Your task to perform on an android device: Search for hotels in Buenos aires Image 0: 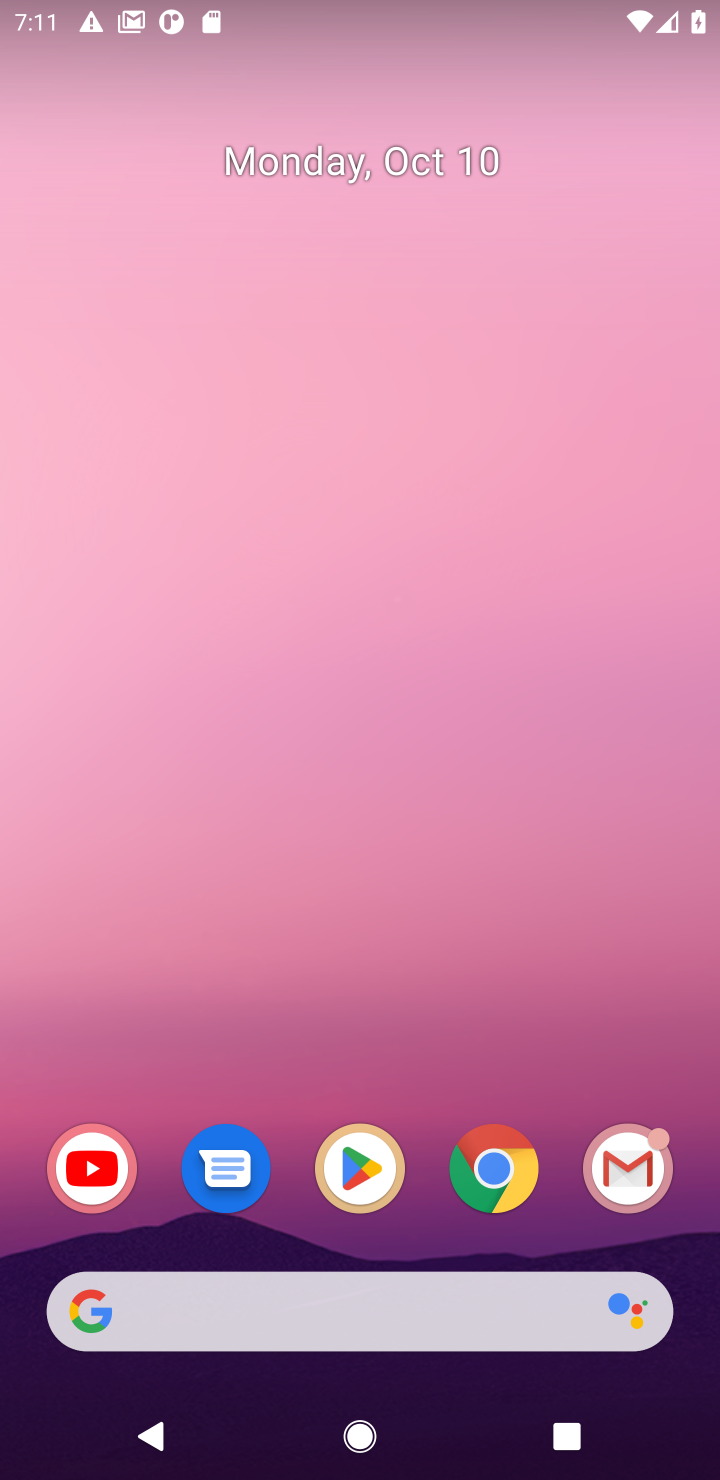
Step 0: click (500, 1187)
Your task to perform on an android device: Search for hotels in Buenos aires Image 1: 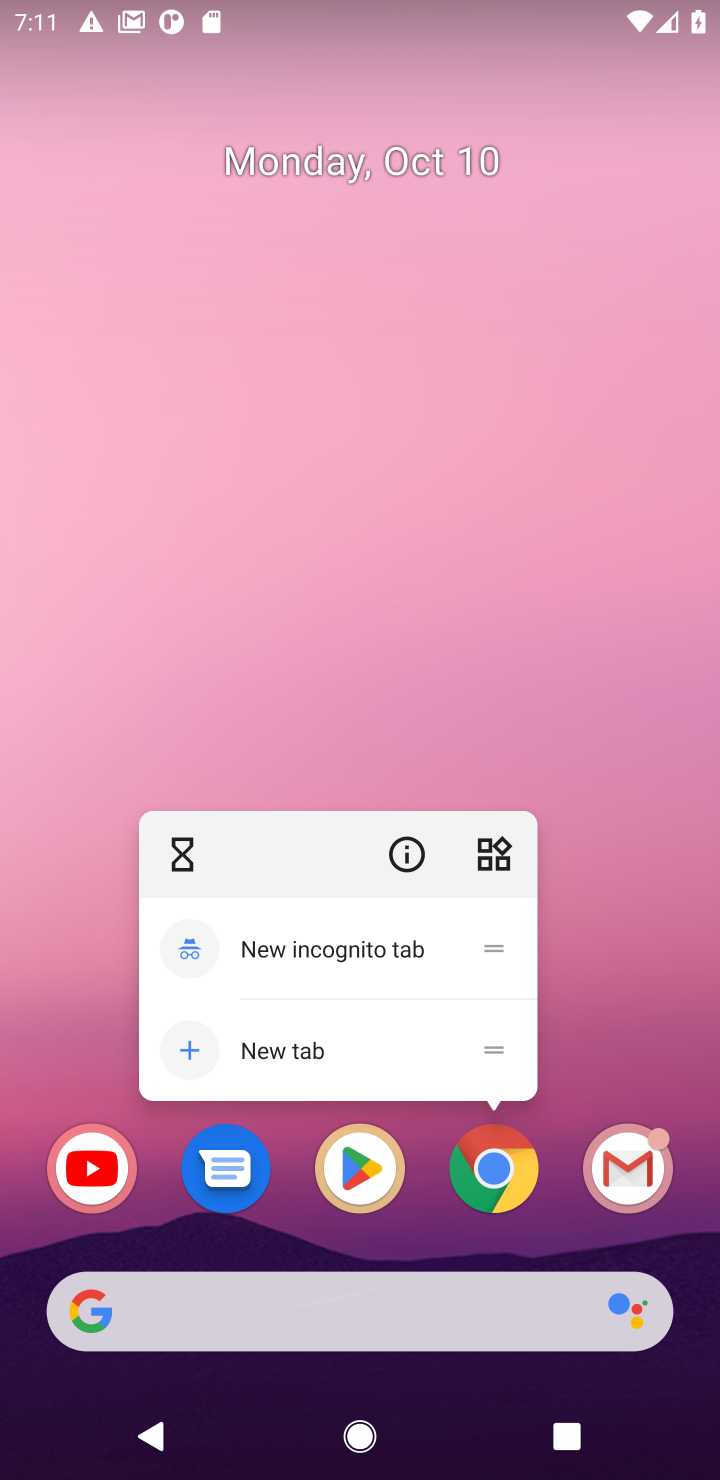
Step 1: click (492, 1173)
Your task to perform on an android device: Search for hotels in Buenos aires Image 2: 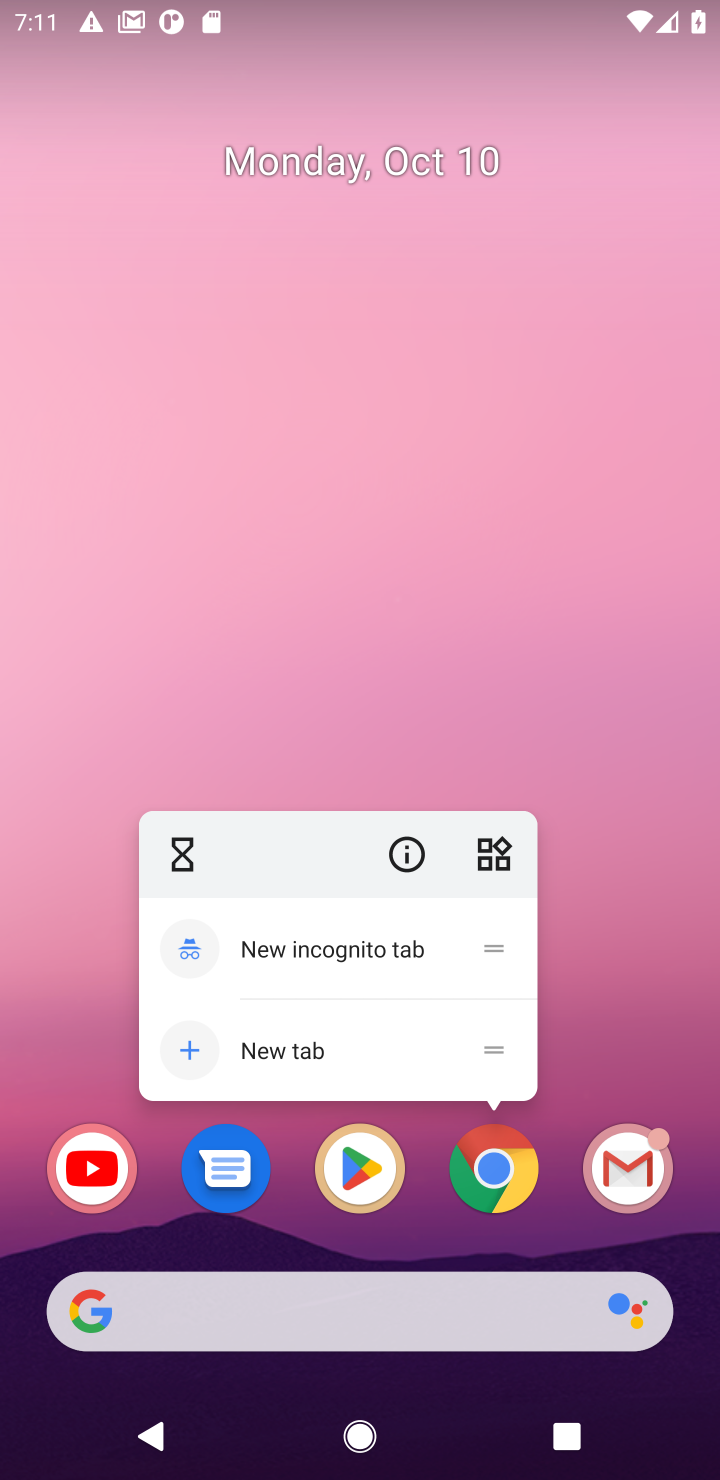
Step 2: click (489, 1195)
Your task to perform on an android device: Search for hotels in Buenos aires Image 3: 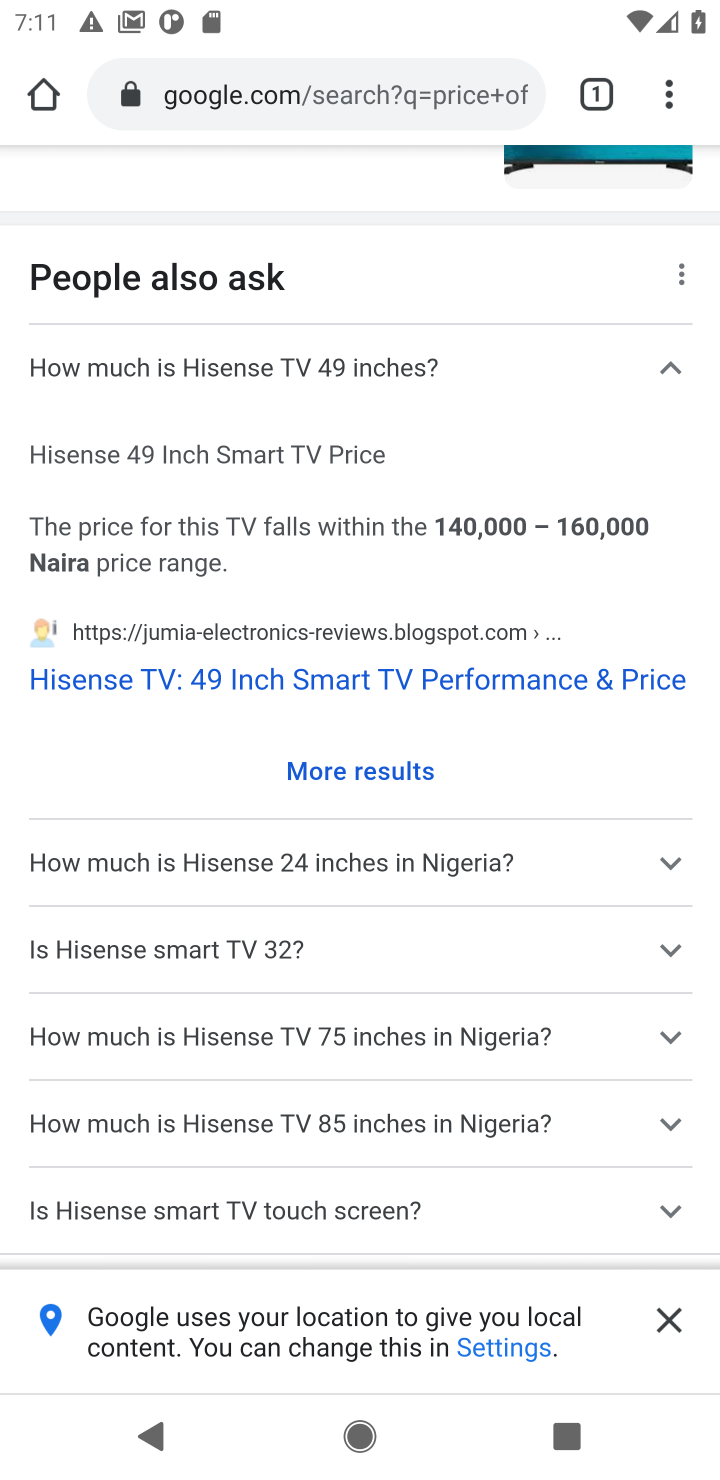
Step 3: click (308, 80)
Your task to perform on an android device: Search for hotels in Buenos aires Image 4: 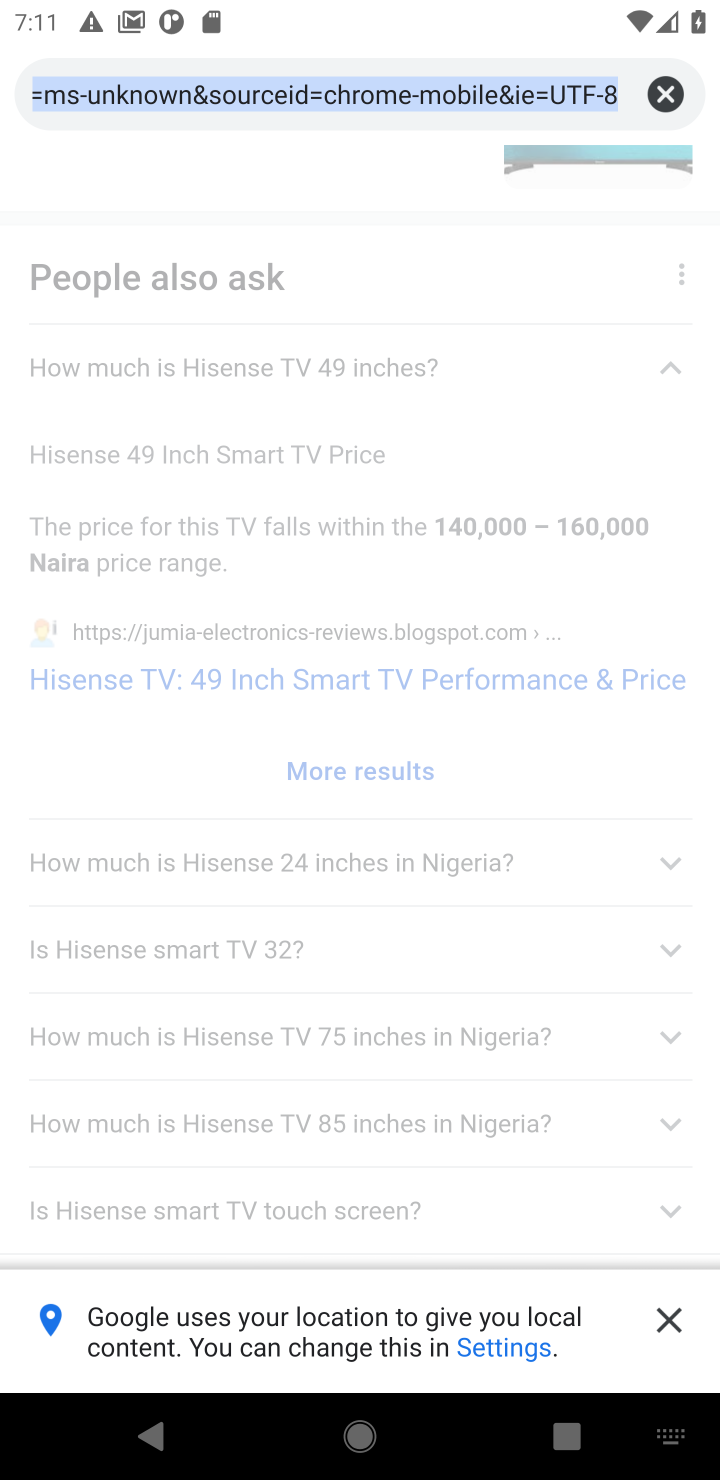
Step 4: click (662, 95)
Your task to perform on an android device: Search for hotels in Buenos aires Image 5: 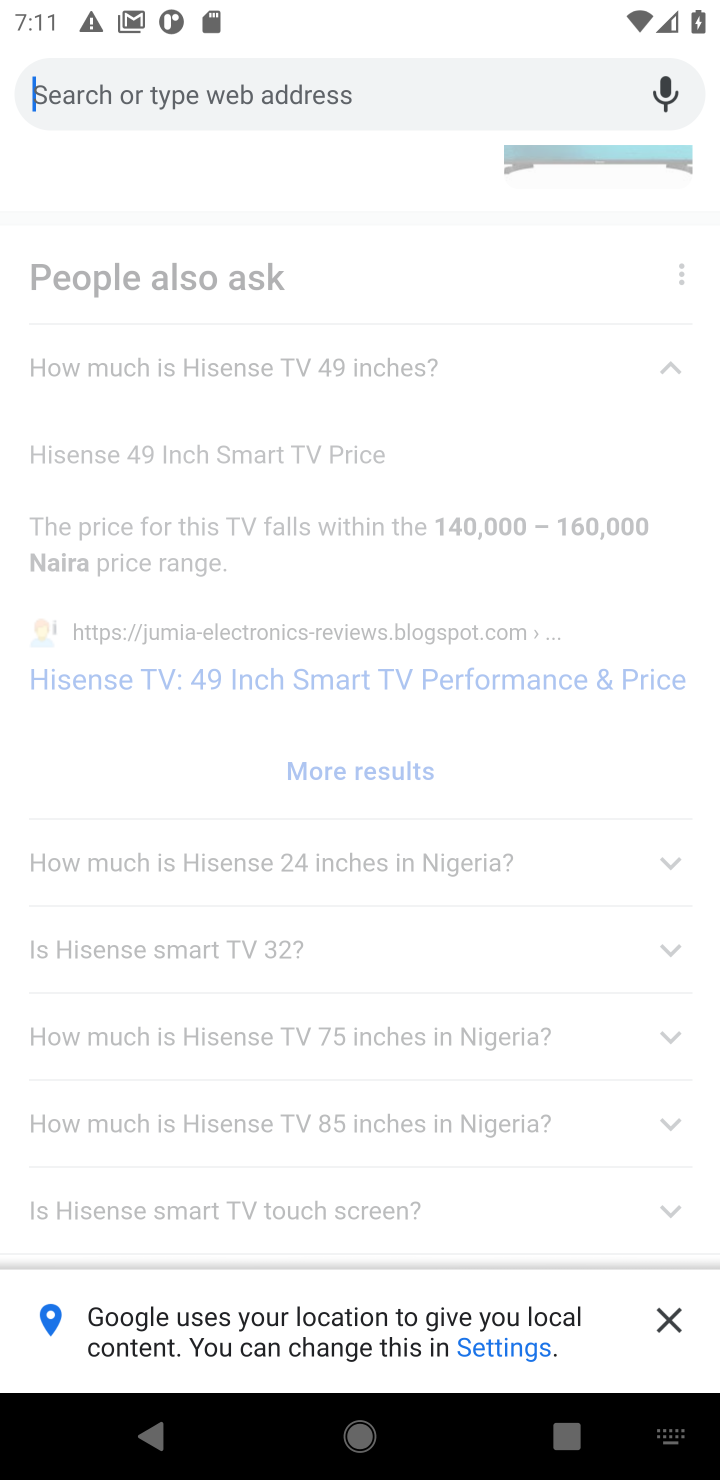
Step 5: type "hotels in buenos aires"
Your task to perform on an android device: Search for hotels in Buenos aires Image 6: 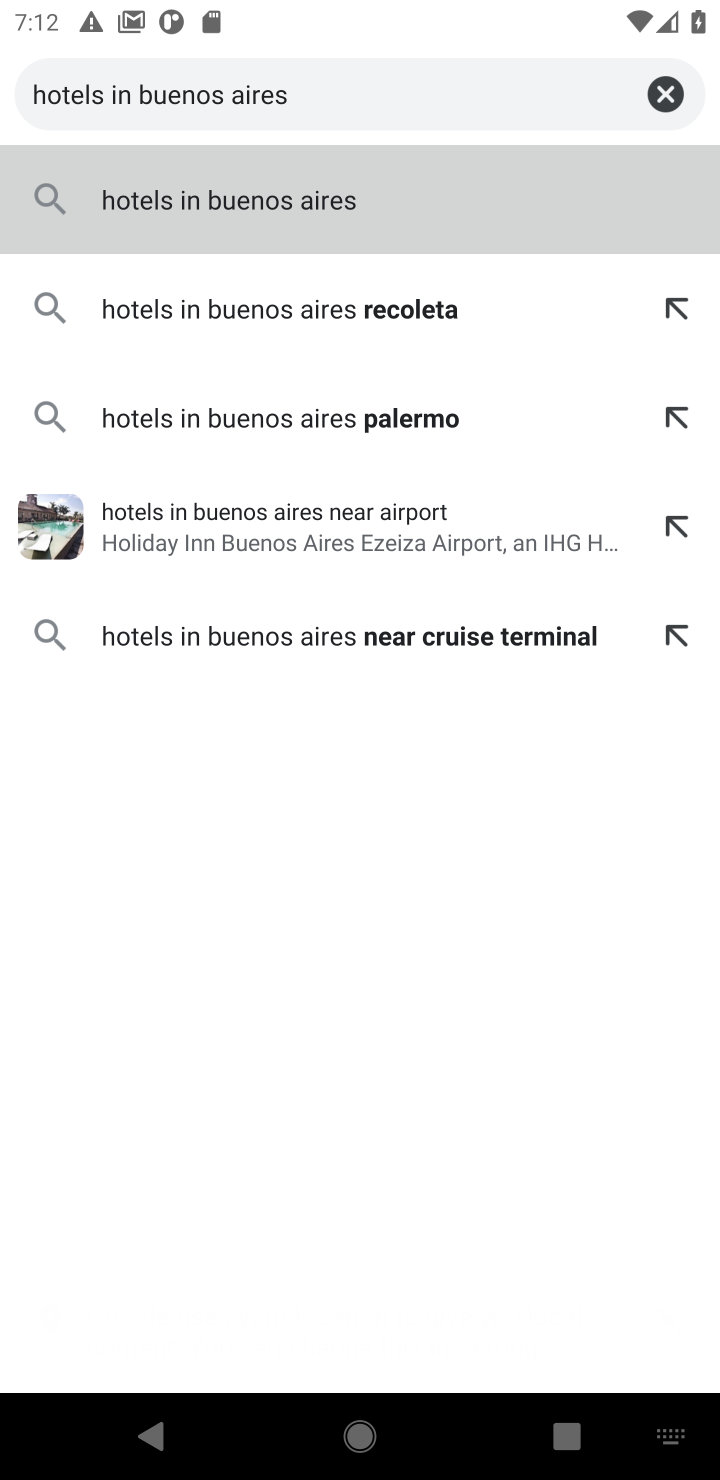
Step 6: click (163, 203)
Your task to perform on an android device: Search for hotels in Buenos aires Image 7: 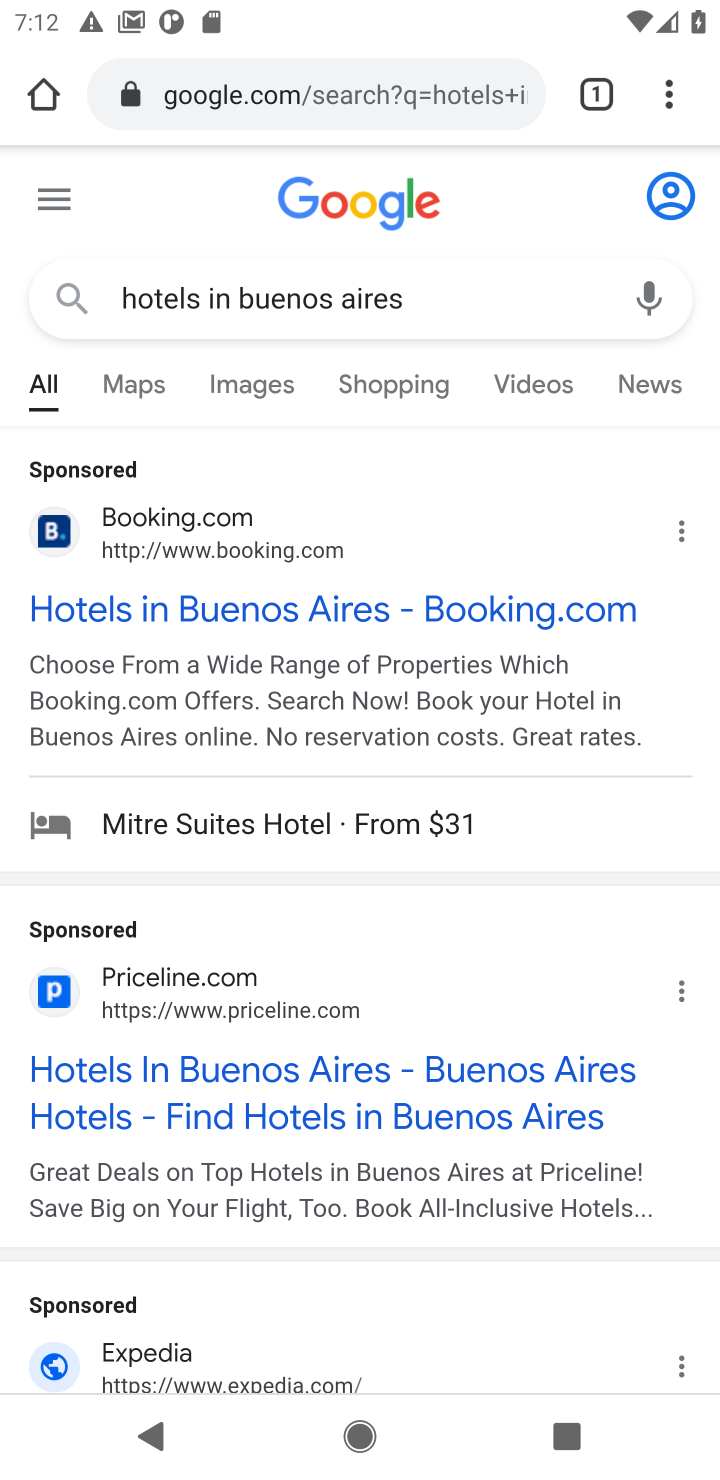
Step 7: drag from (266, 930) to (270, 455)
Your task to perform on an android device: Search for hotels in Buenos aires Image 8: 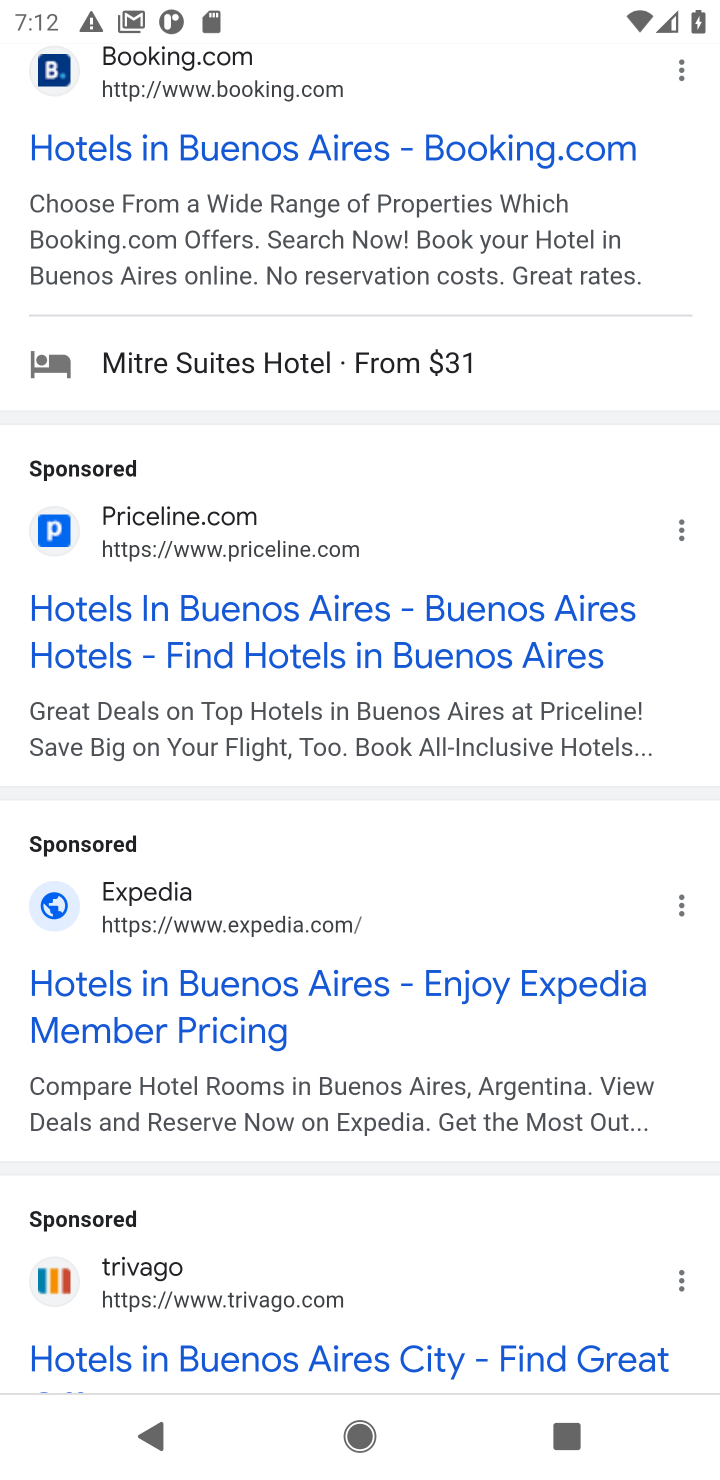
Step 8: click (147, 523)
Your task to perform on an android device: Search for hotels in Buenos aires Image 9: 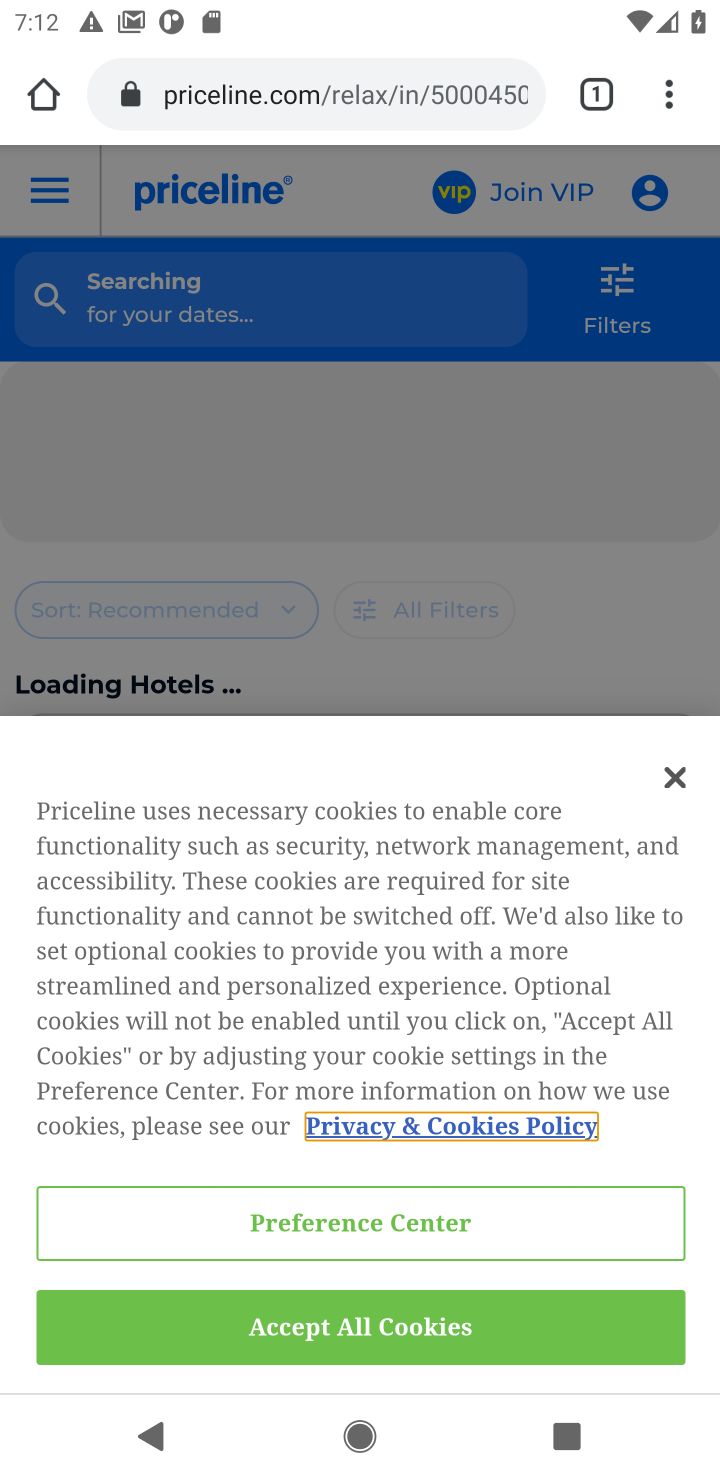
Step 9: click (681, 773)
Your task to perform on an android device: Search for hotels in Buenos aires Image 10: 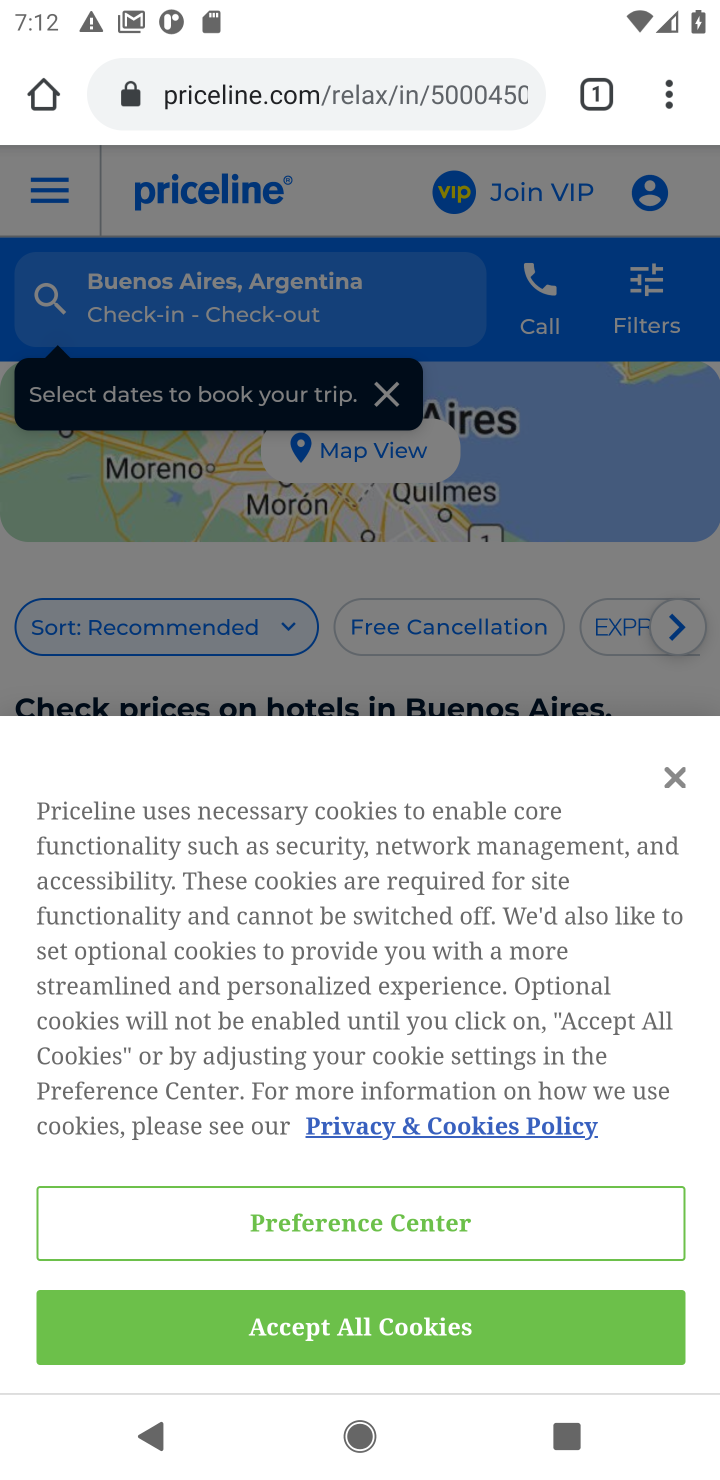
Step 10: click (678, 778)
Your task to perform on an android device: Search for hotels in Buenos aires Image 11: 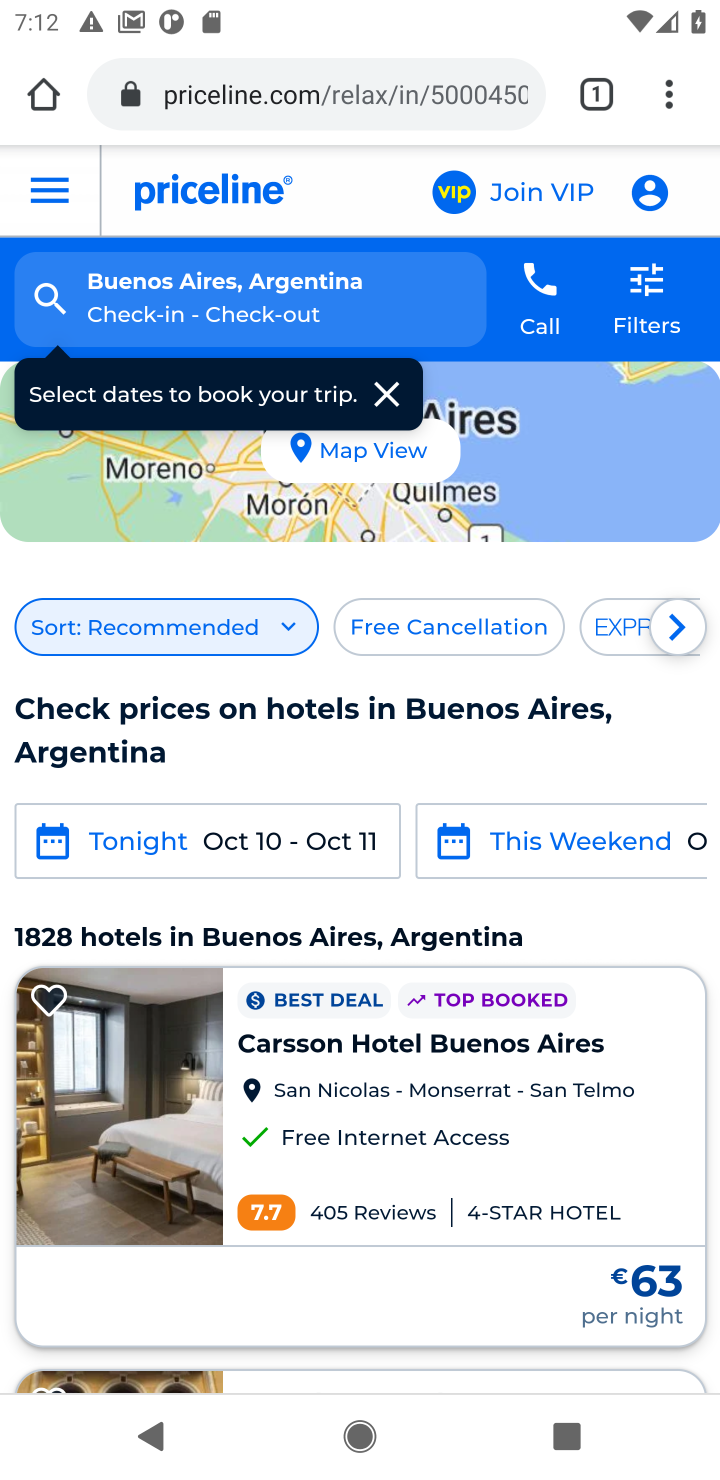
Step 11: task complete